Your task to perform on an android device: Toggle the flashlight Image 0: 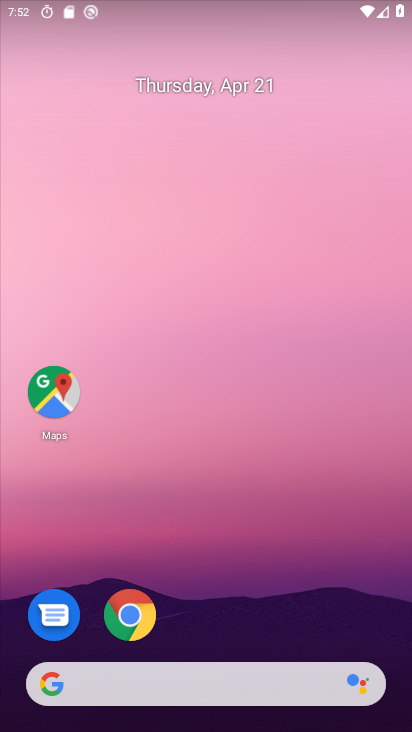
Step 0: drag from (225, 10) to (252, 505)
Your task to perform on an android device: Toggle the flashlight Image 1: 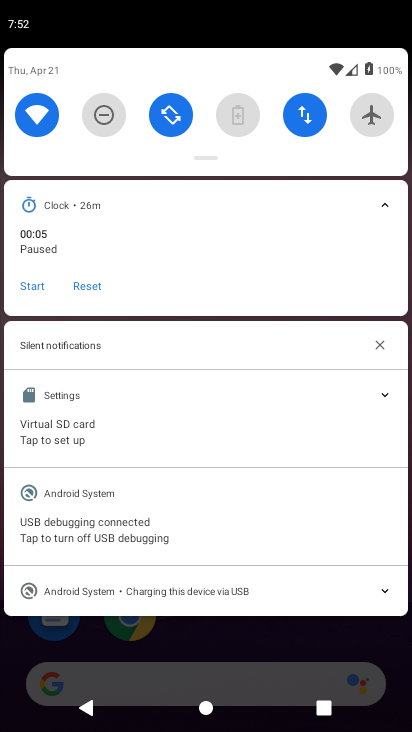
Step 1: task complete